Your task to perform on an android device: change keyboard looks Image 0: 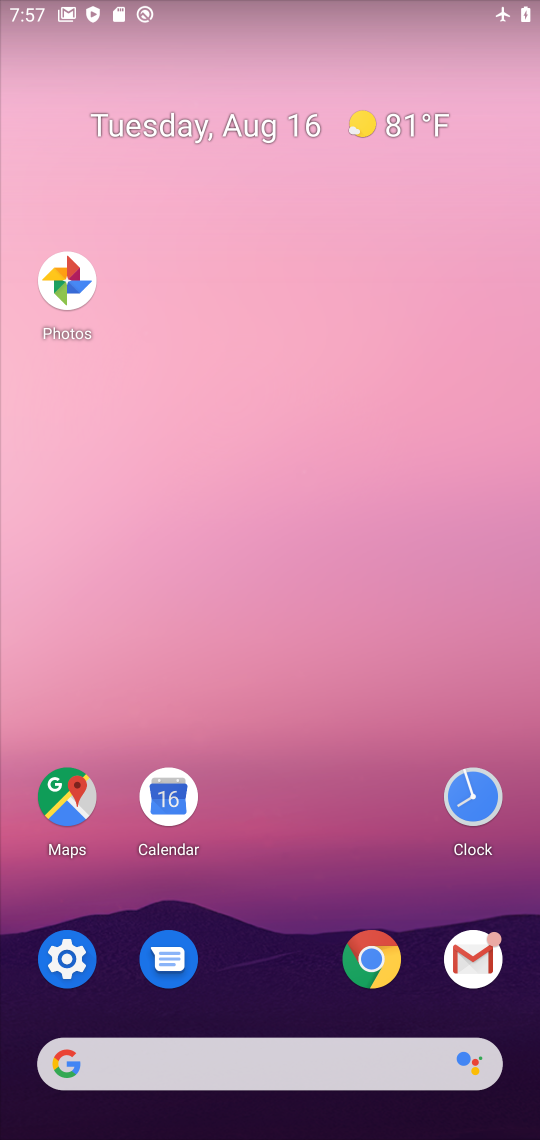
Step 0: click (61, 955)
Your task to perform on an android device: change keyboard looks Image 1: 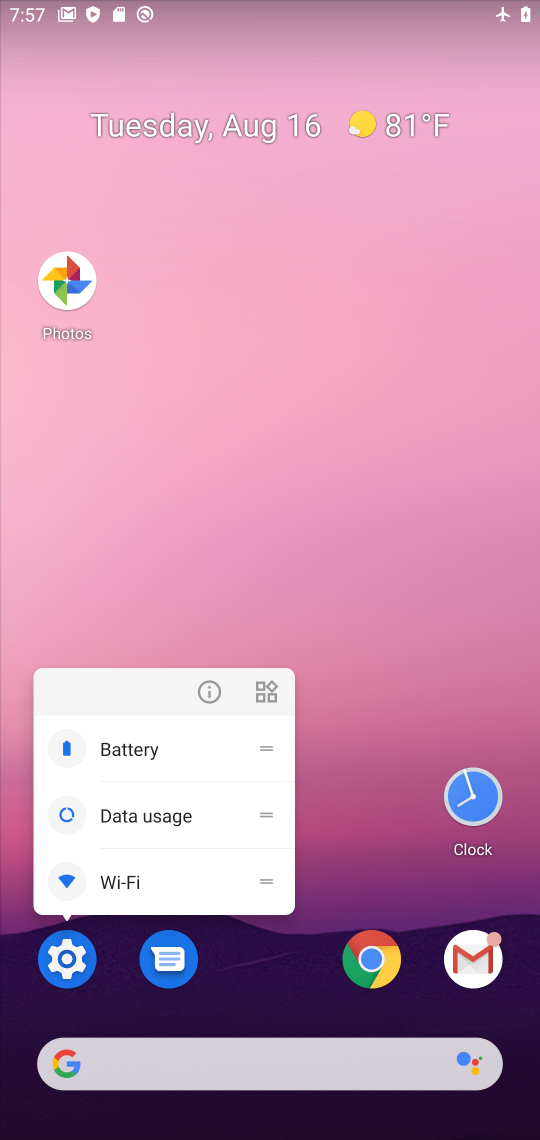
Step 1: click (69, 976)
Your task to perform on an android device: change keyboard looks Image 2: 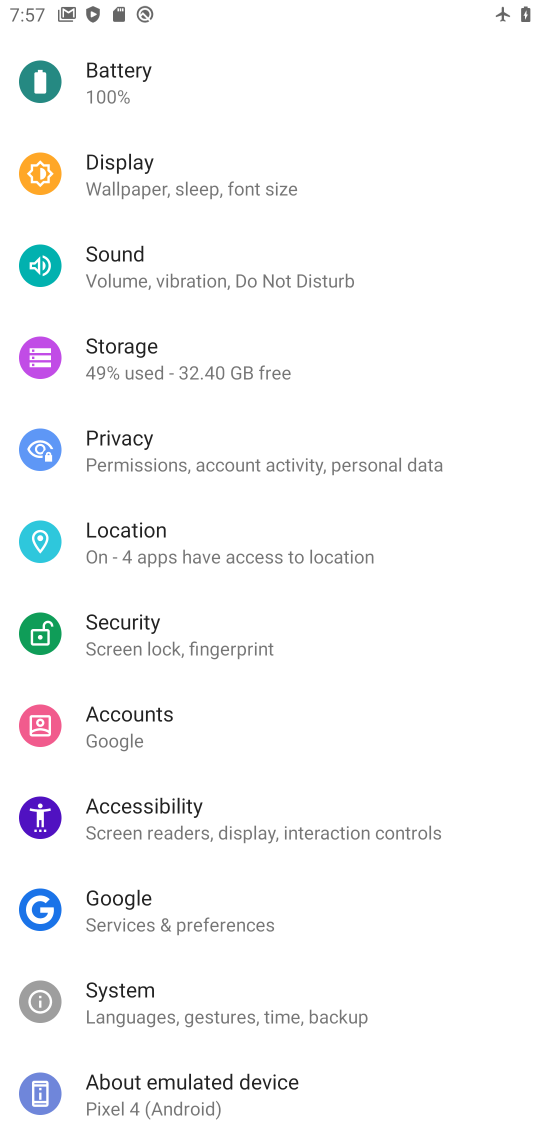
Step 2: click (127, 993)
Your task to perform on an android device: change keyboard looks Image 3: 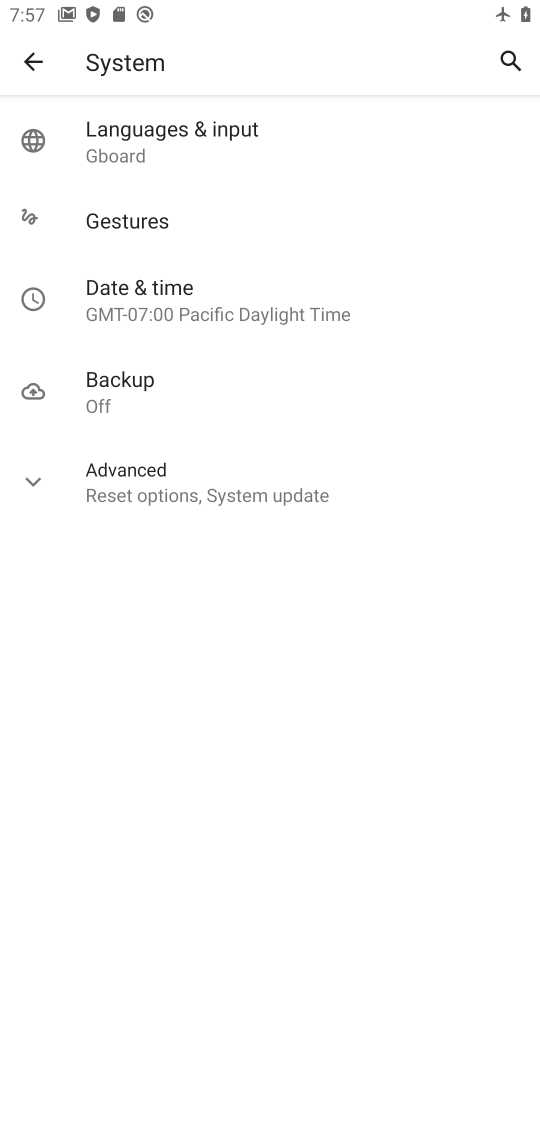
Step 3: click (137, 133)
Your task to perform on an android device: change keyboard looks Image 4: 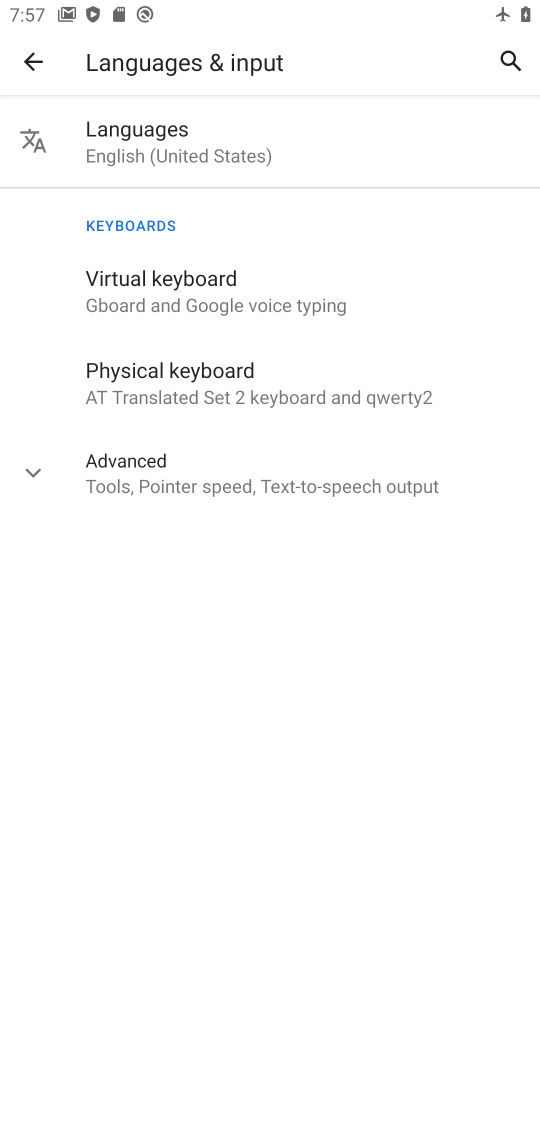
Step 4: click (140, 277)
Your task to perform on an android device: change keyboard looks Image 5: 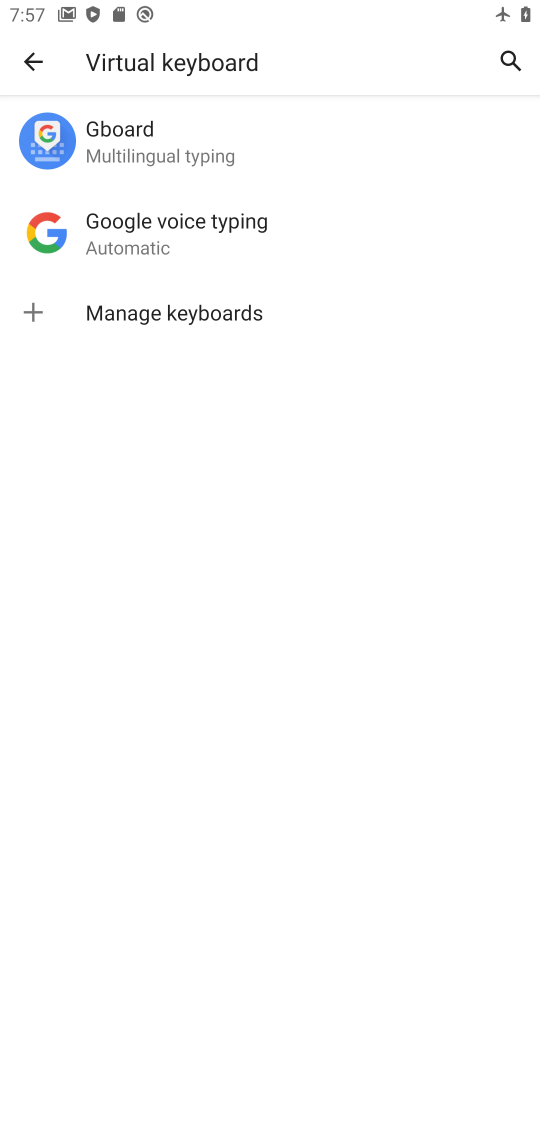
Step 5: click (123, 138)
Your task to perform on an android device: change keyboard looks Image 6: 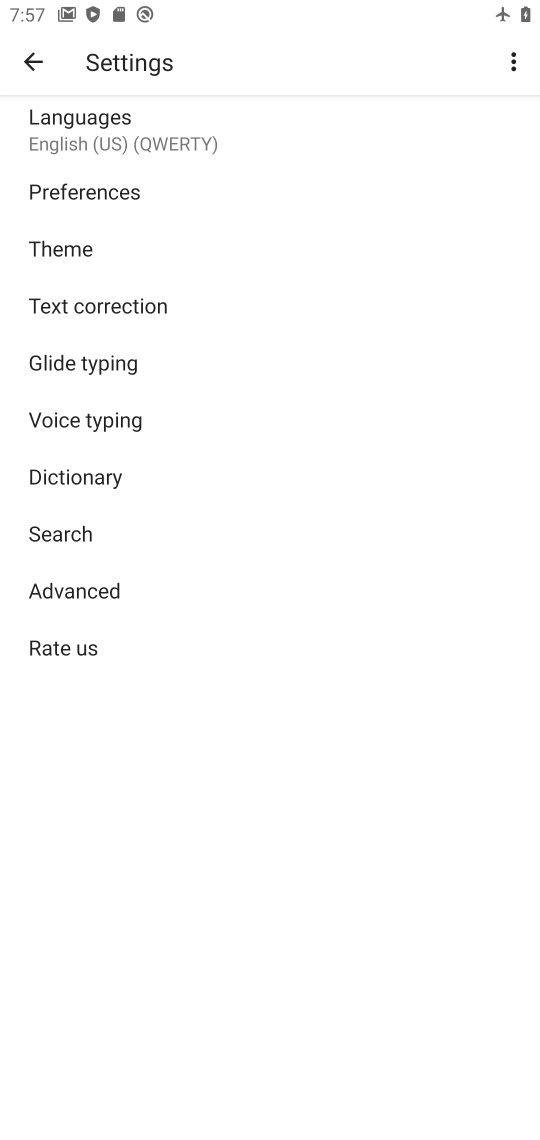
Step 6: click (56, 244)
Your task to perform on an android device: change keyboard looks Image 7: 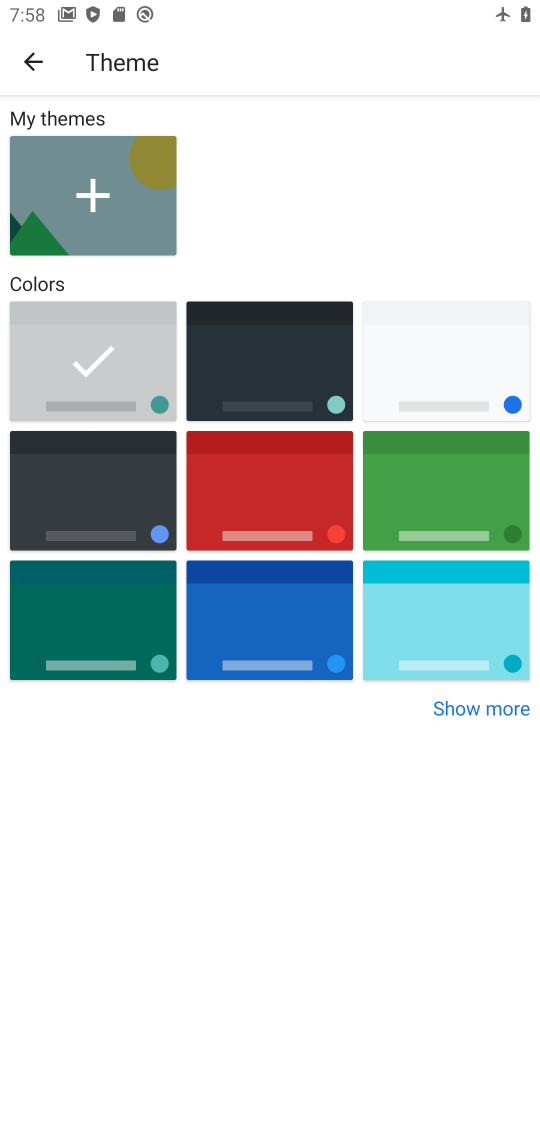
Step 7: click (270, 504)
Your task to perform on an android device: change keyboard looks Image 8: 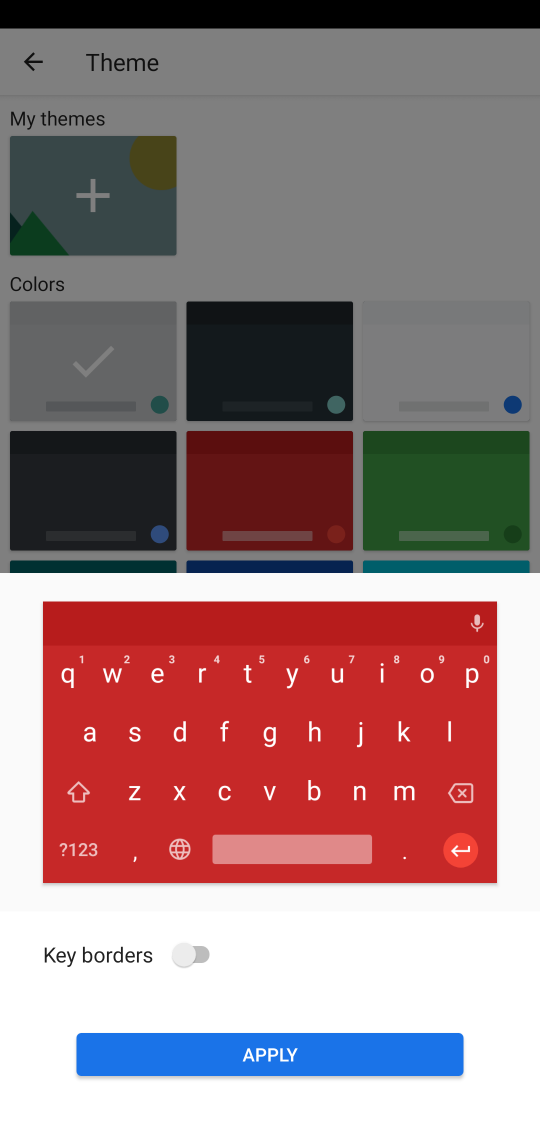
Step 8: click (264, 1051)
Your task to perform on an android device: change keyboard looks Image 9: 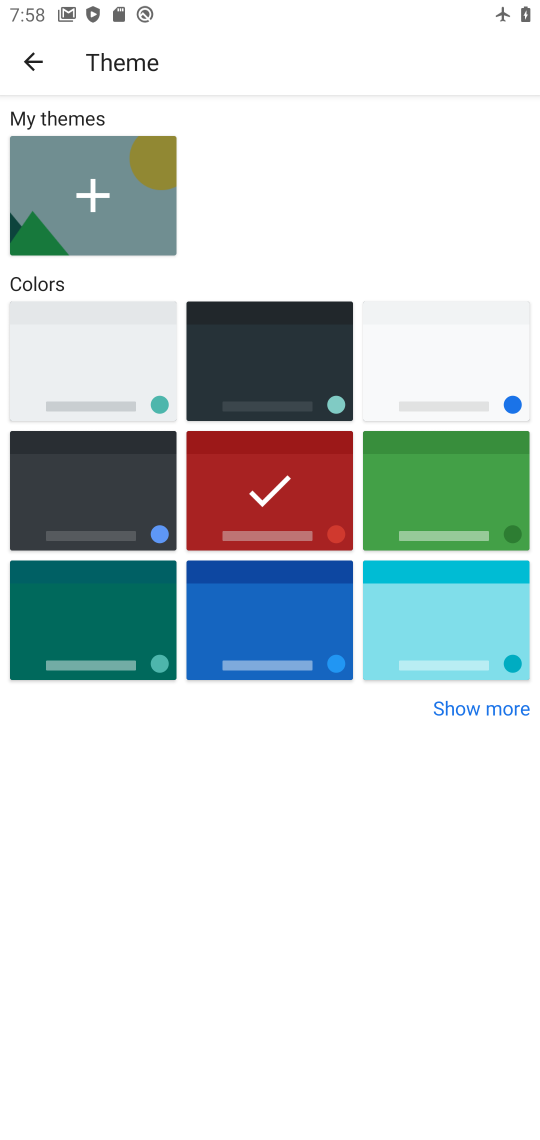
Step 9: task complete